Your task to perform on an android device: Empty the shopping cart on ebay.com. Search for amazon basics triple a on ebay.com, select the first entry, add it to the cart, then select checkout. Image 0: 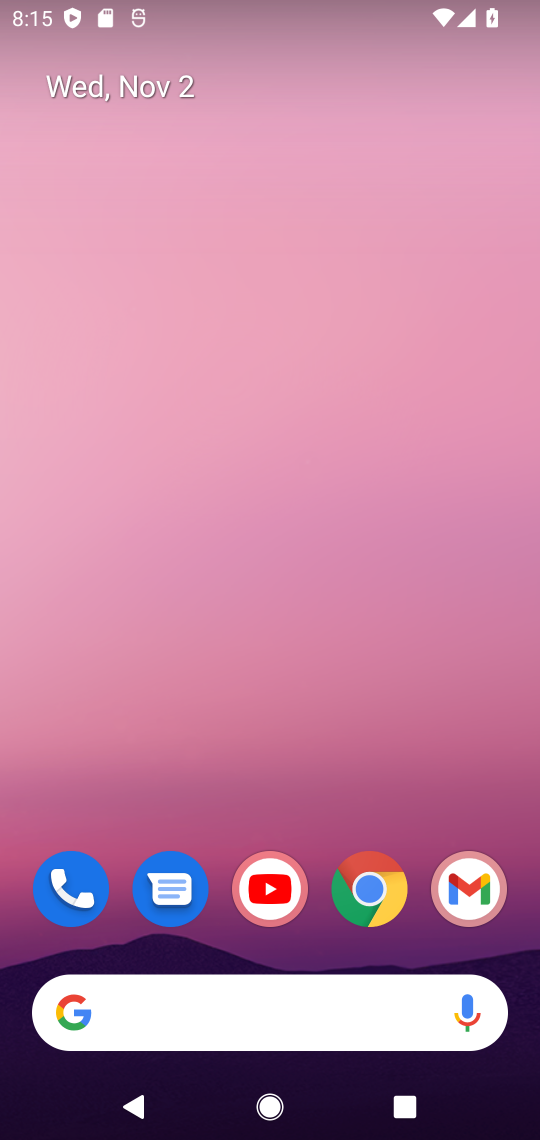
Step 0: press home button
Your task to perform on an android device: Empty the shopping cart on ebay.com. Search for amazon basics triple a on ebay.com, select the first entry, add it to the cart, then select checkout. Image 1: 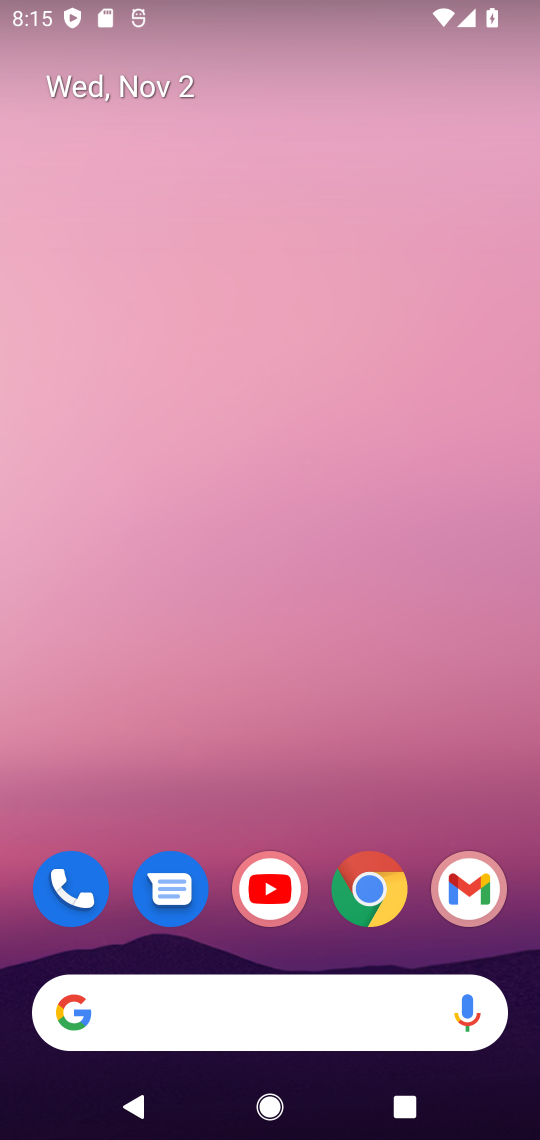
Step 1: press home button
Your task to perform on an android device: Empty the shopping cart on ebay.com. Search for amazon basics triple a on ebay.com, select the first entry, add it to the cart, then select checkout. Image 2: 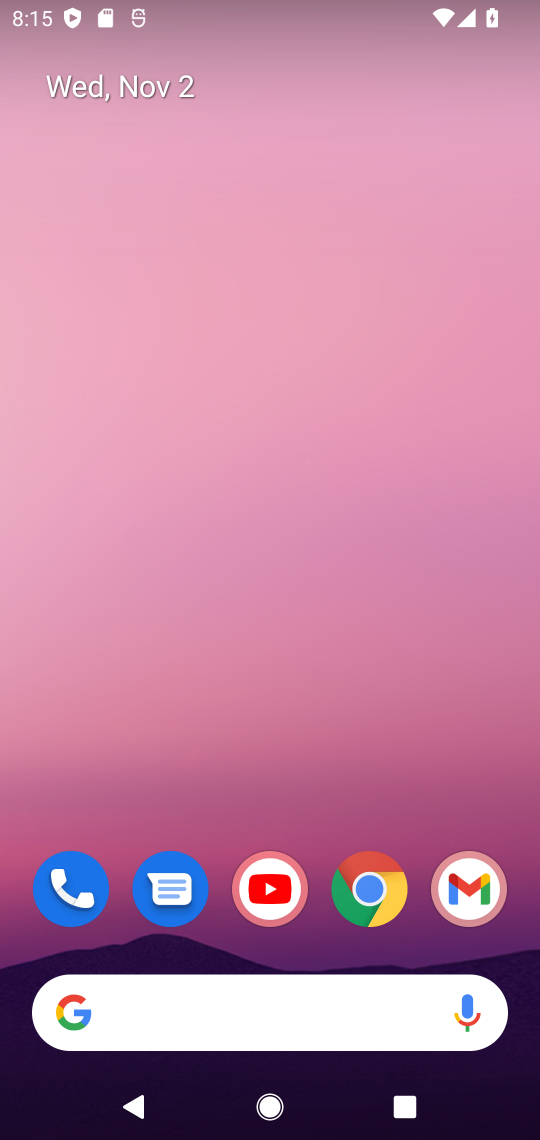
Step 2: drag from (345, 824) to (344, 224)
Your task to perform on an android device: Empty the shopping cart on ebay.com. Search for amazon basics triple a on ebay.com, select the first entry, add it to the cart, then select checkout. Image 3: 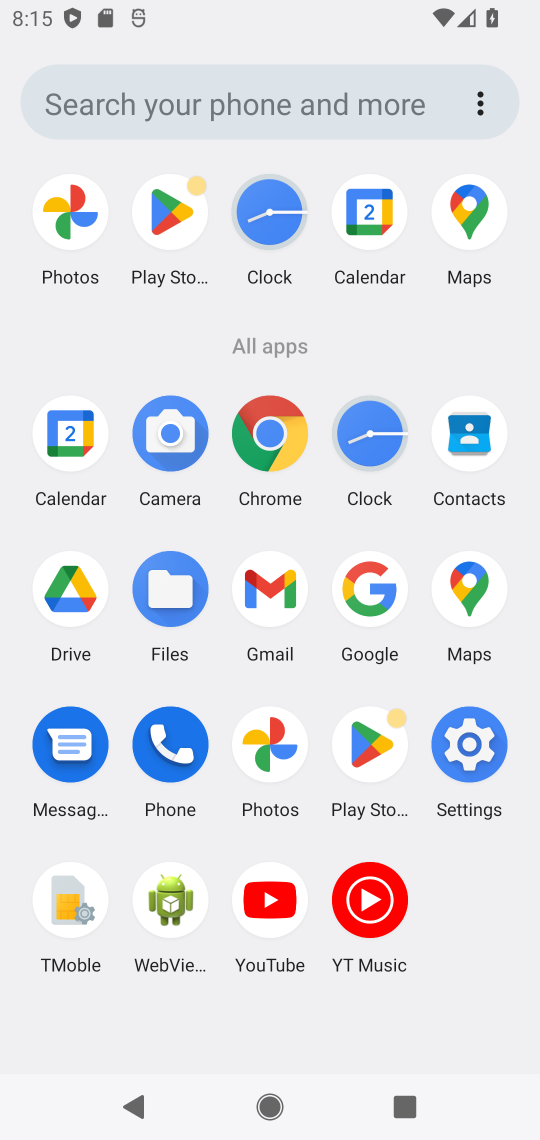
Step 3: click (262, 413)
Your task to perform on an android device: Empty the shopping cart on ebay.com. Search for amazon basics triple a on ebay.com, select the first entry, add it to the cart, then select checkout. Image 4: 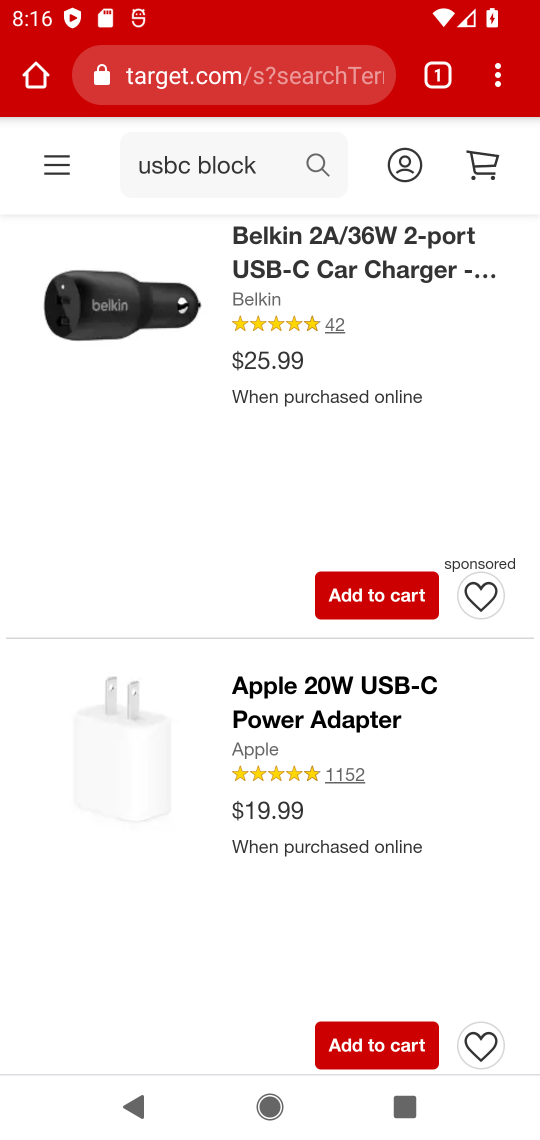
Step 4: click (182, 74)
Your task to perform on an android device: Empty the shopping cart on ebay.com. Search for amazon basics triple a on ebay.com, select the first entry, add it to the cart, then select checkout. Image 5: 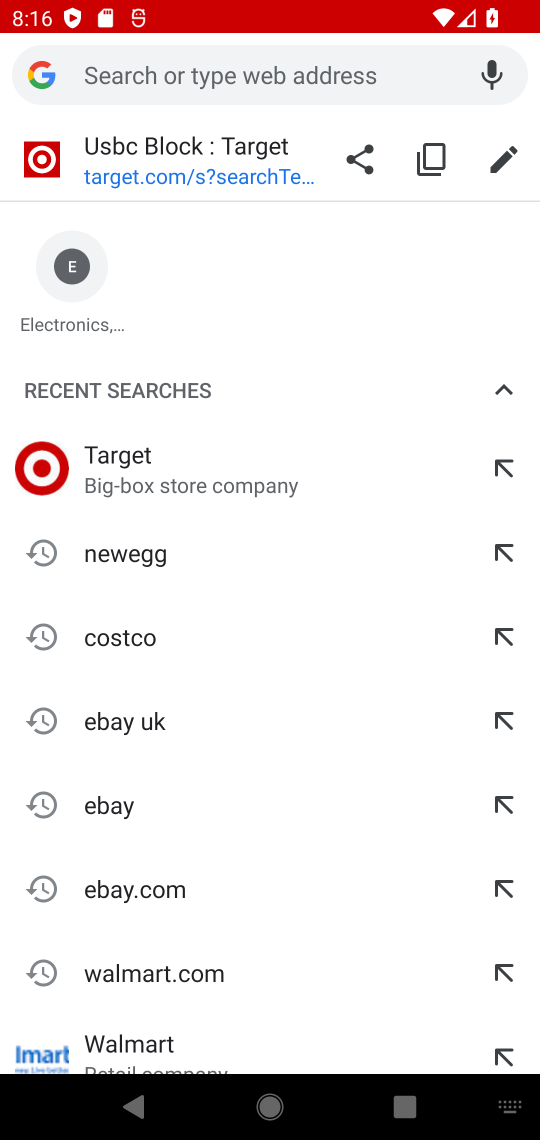
Step 5: type "ebay"
Your task to perform on an android device: Empty the shopping cart on ebay.com. Search for amazon basics triple a on ebay.com, select the first entry, add it to the cart, then select checkout. Image 6: 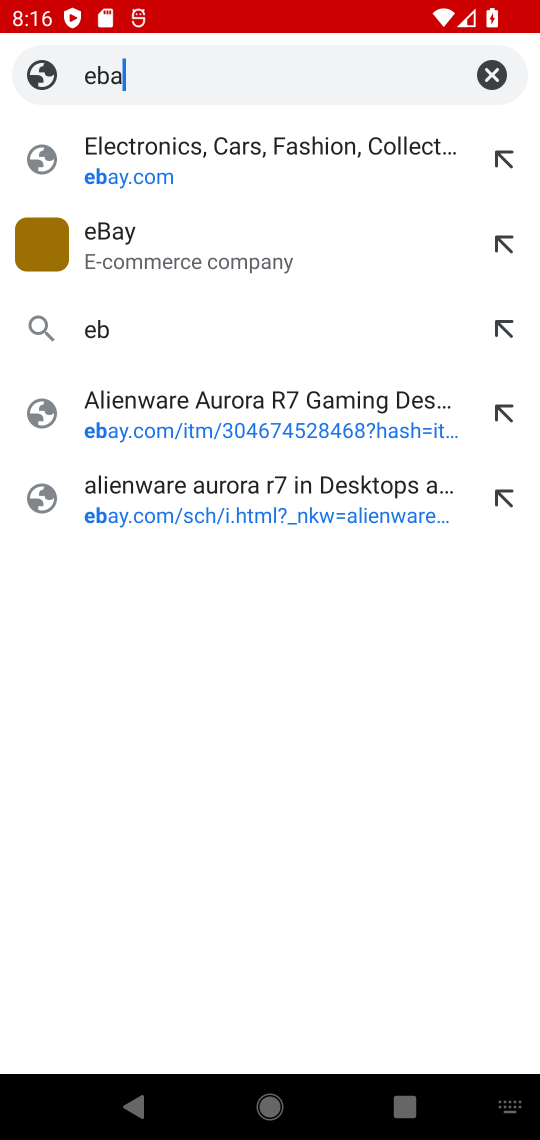
Step 6: type ""
Your task to perform on an android device: Empty the shopping cart on ebay.com. Search for amazon basics triple a on ebay.com, select the first entry, add it to the cart, then select checkout. Image 7: 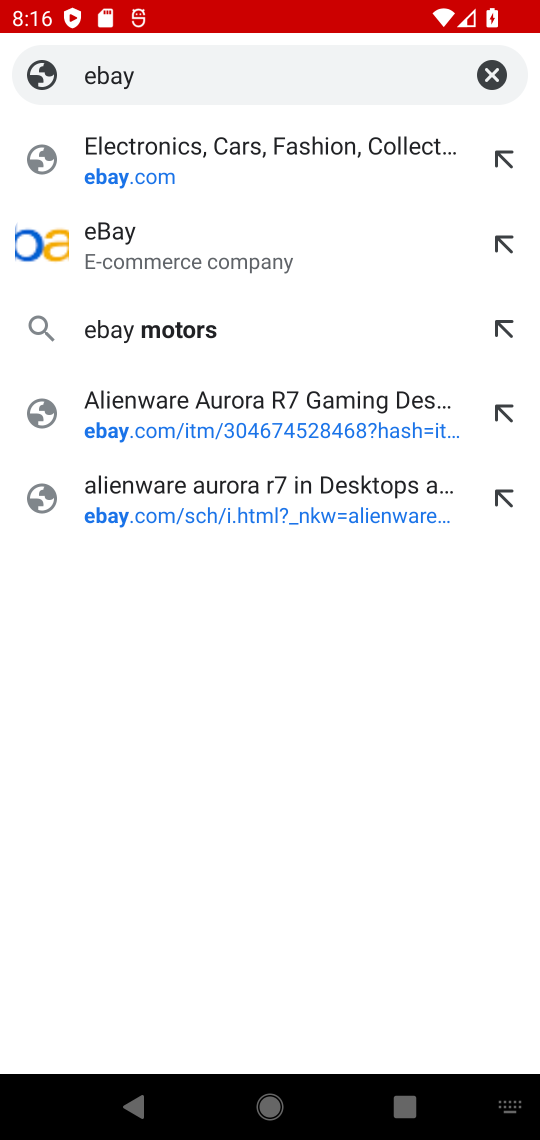
Step 7: click (182, 153)
Your task to perform on an android device: Empty the shopping cart on ebay.com. Search for amazon basics triple a on ebay.com, select the first entry, add it to the cart, then select checkout. Image 8: 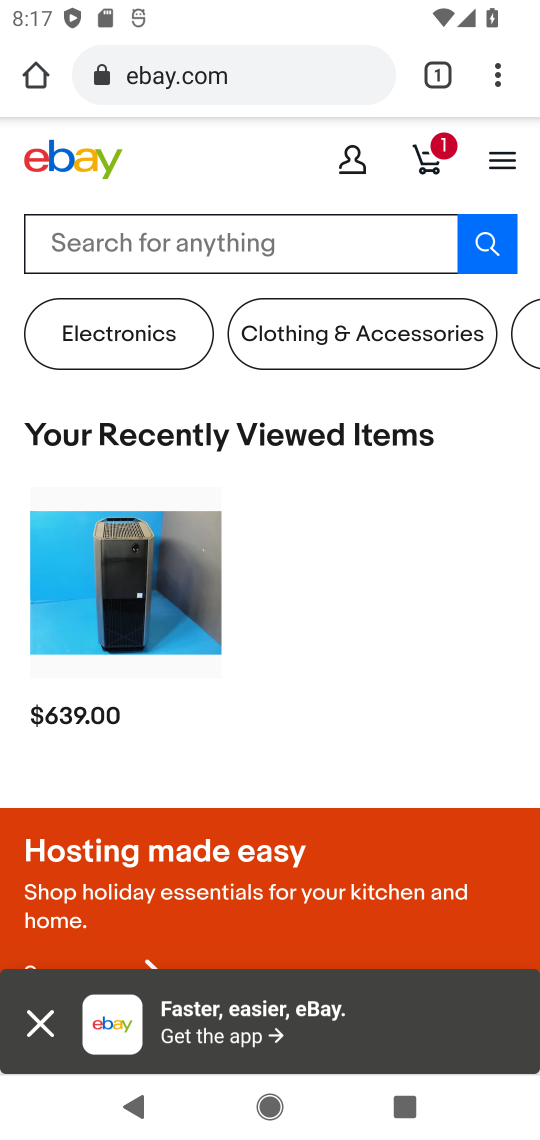
Step 8: click (45, 1030)
Your task to perform on an android device: Empty the shopping cart on ebay.com. Search for amazon basics triple a on ebay.com, select the first entry, add it to the cart, then select checkout. Image 9: 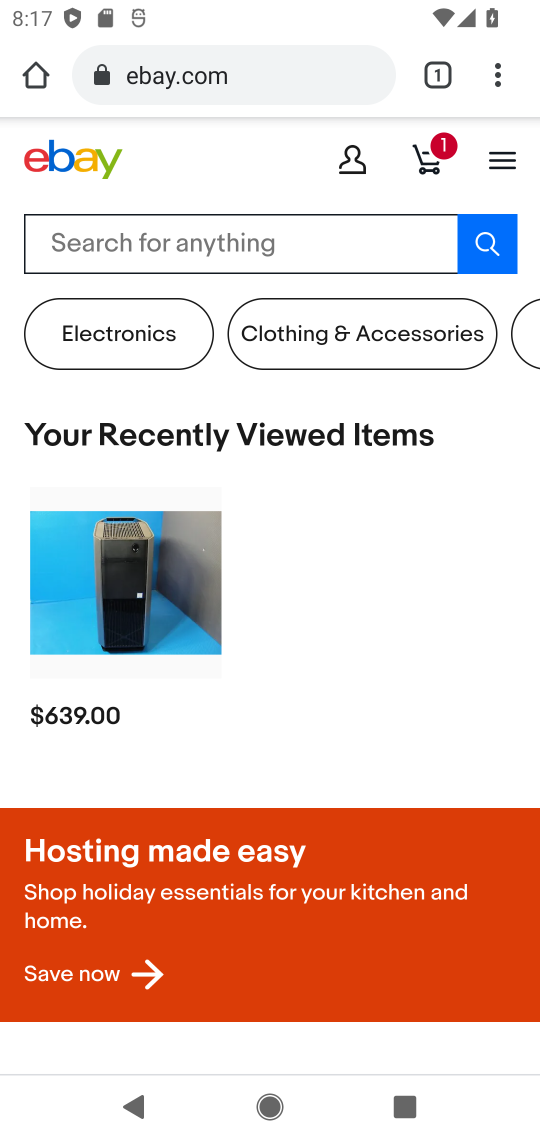
Step 9: click (88, 235)
Your task to perform on an android device: Empty the shopping cart on ebay.com. Search for amazon basics triple a on ebay.com, select the first entry, add it to the cart, then select checkout. Image 10: 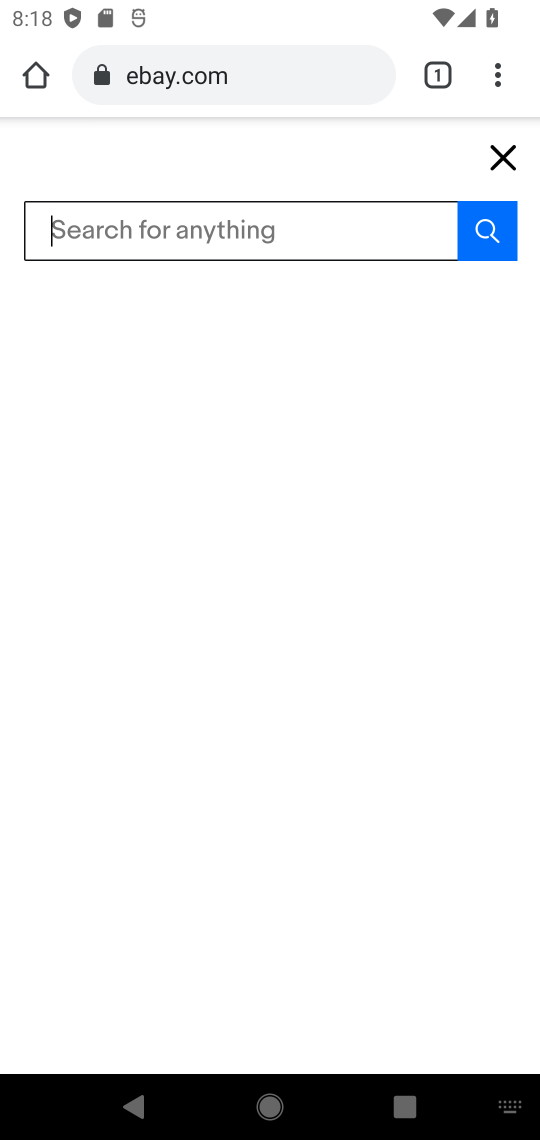
Step 10: type "amazon basics triple a "
Your task to perform on an android device: Empty the shopping cart on ebay.com. Search for amazon basics triple a on ebay.com, select the first entry, add it to the cart, then select checkout. Image 11: 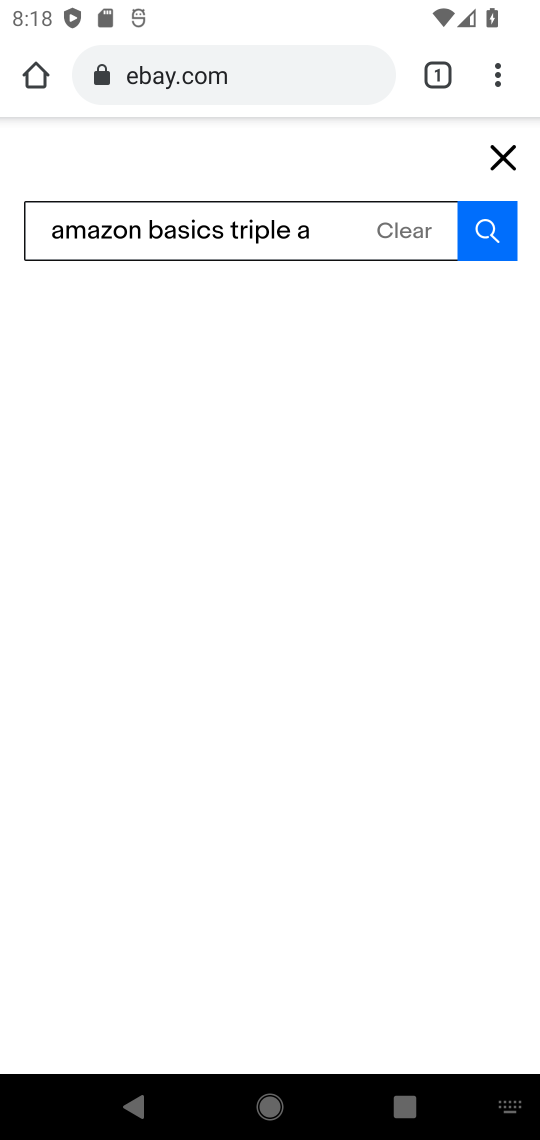
Step 11: click (477, 227)
Your task to perform on an android device: Empty the shopping cart on ebay.com. Search for amazon basics triple a on ebay.com, select the first entry, add it to the cart, then select checkout. Image 12: 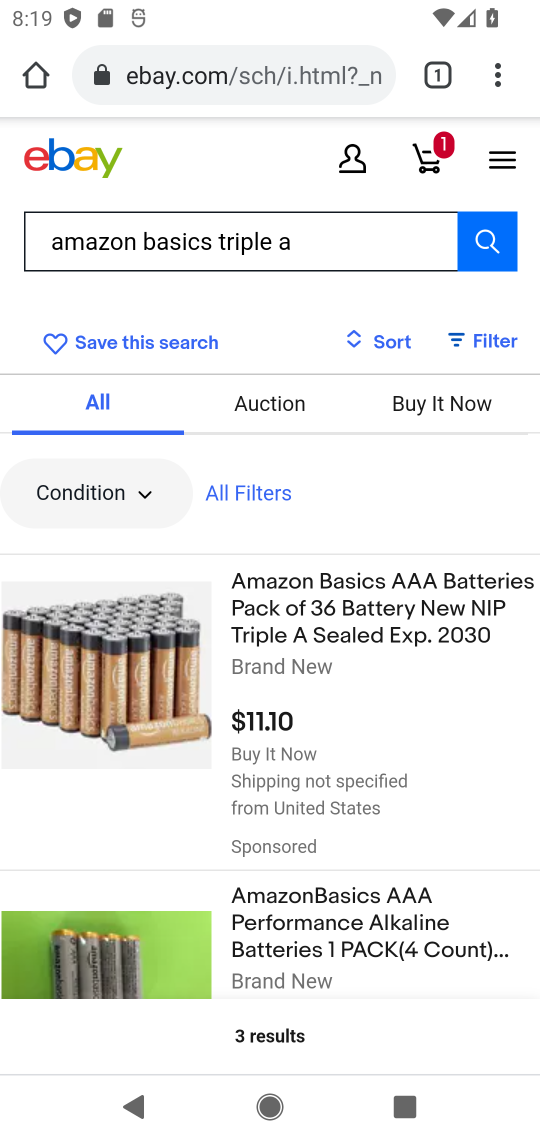
Step 12: click (296, 629)
Your task to perform on an android device: Empty the shopping cart on ebay.com. Search for amazon basics triple a on ebay.com, select the first entry, add it to the cart, then select checkout. Image 13: 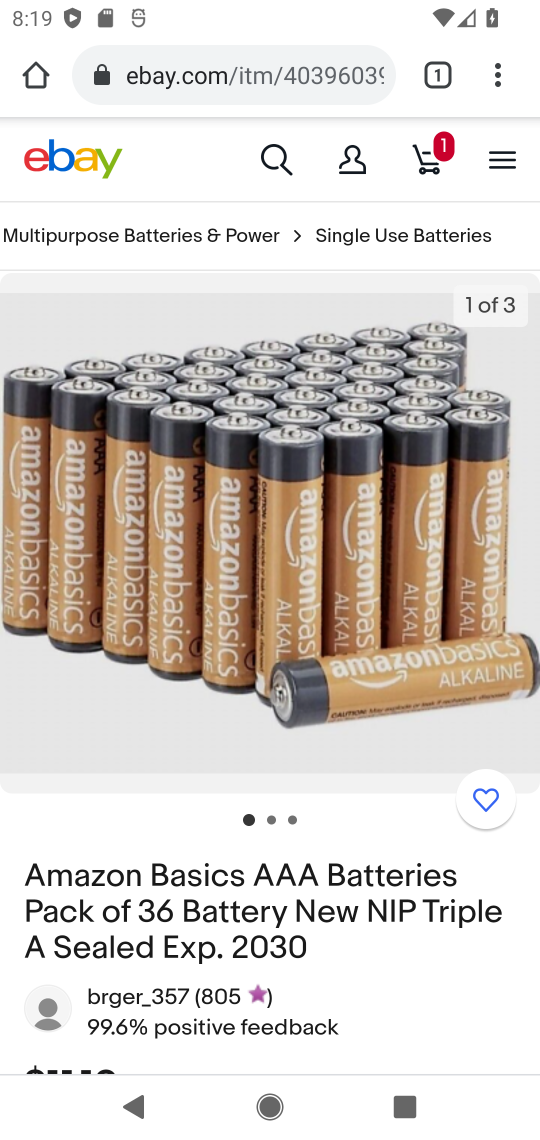
Step 13: drag from (240, 938) to (295, 269)
Your task to perform on an android device: Empty the shopping cart on ebay.com. Search for amazon basics triple a on ebay.com, select the first entry, add it to the cart, then select checkout. Image 14: 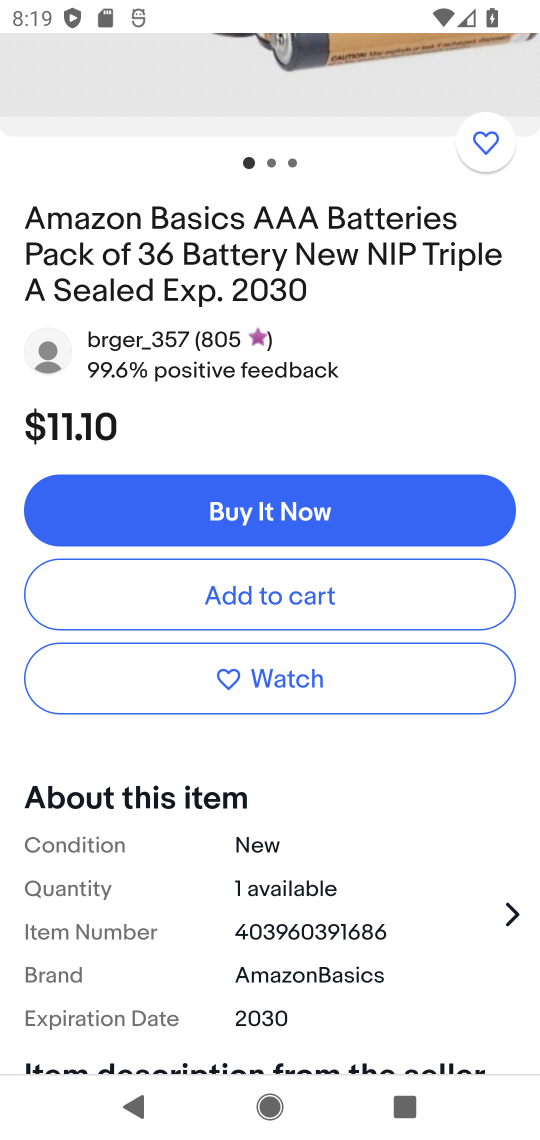
Step 14: click (251, 589)
Your task to perform on an android device: Empty the shopping cart on ebay.com. Search for amazon basics triple a on ebay.com, select the first entry, add it to the cart, then select checkout. Image 15: 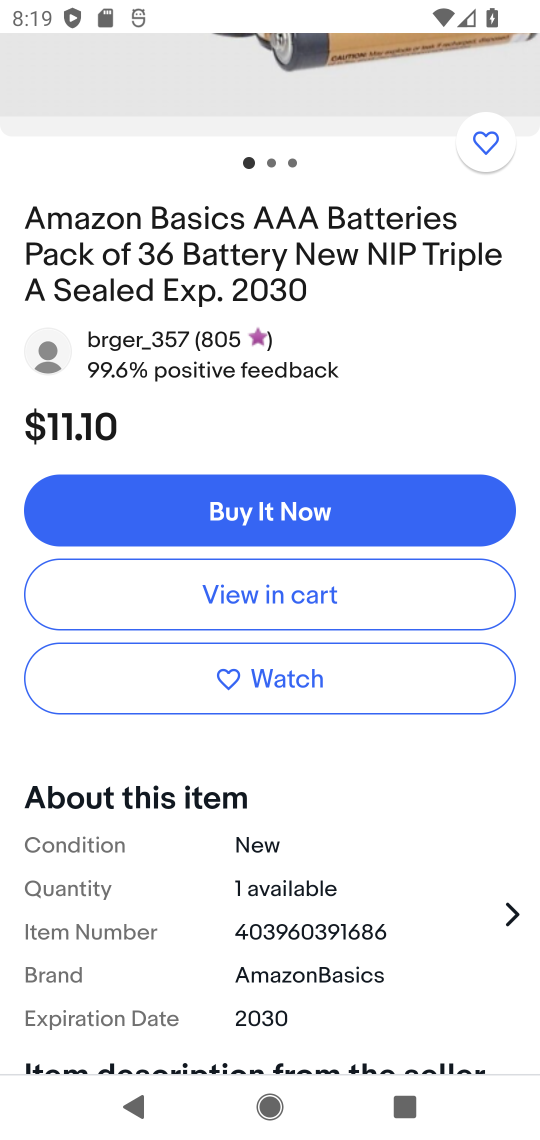
Step 15: click (251, 589)
Your task to perform on an android device: Empty the shopping cart on ebay.com. Search for amazon basics triple a on ebay.com, select the first entry, add it to the cart, then select checkout. Image 16: 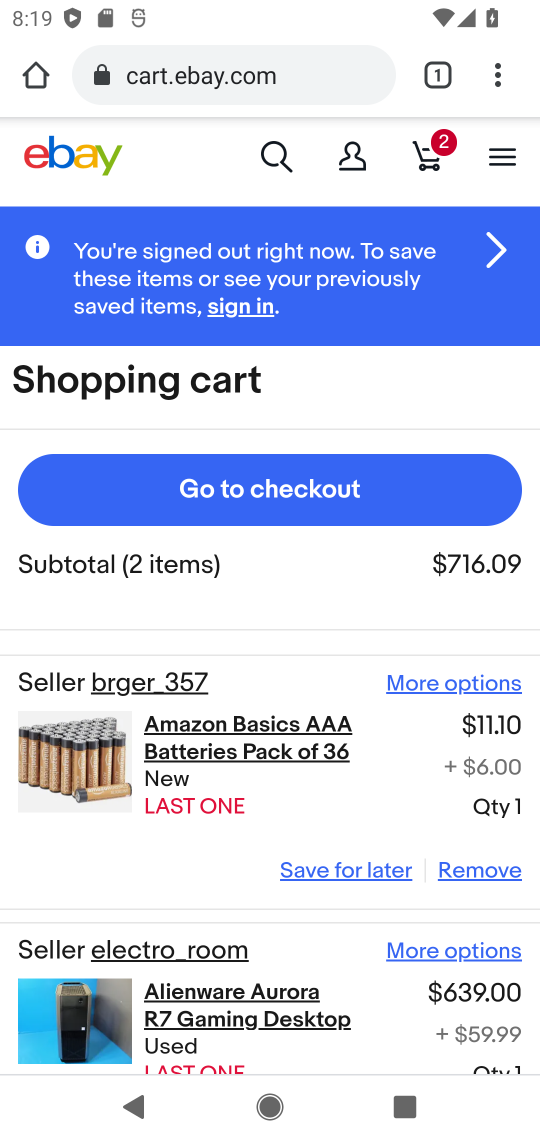
Step 16: click (243, 489)
Your task to perform on an android device: Empty the shopping cart on ebay.com. Search for amazon basics triple a on ebay.com, select the first entry, add it to the cart, then select checkout. Image 17: 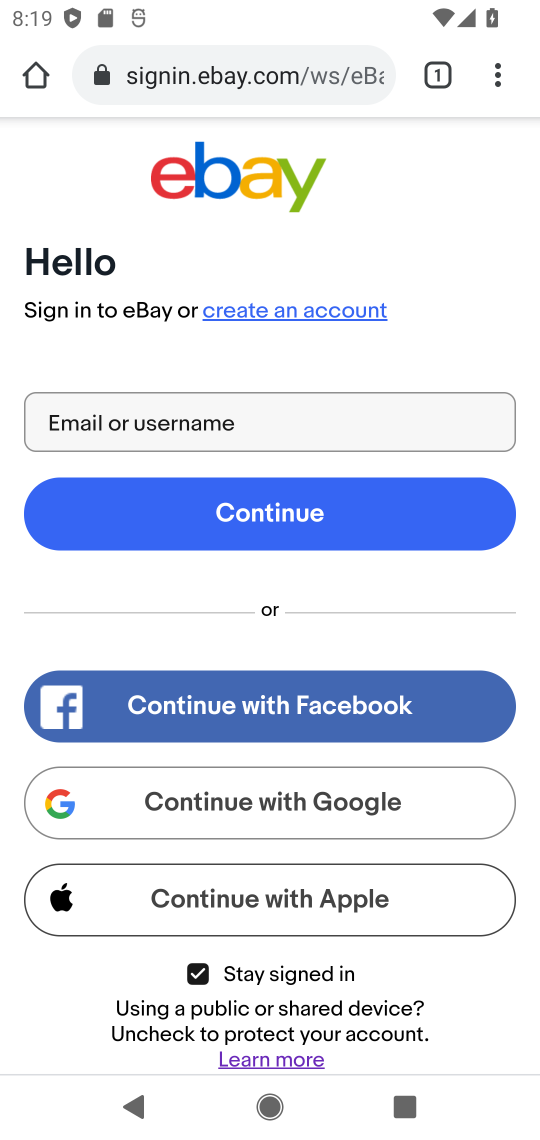
Step 17: task complete